Your task to perform on an android device: Open network settings Image 0: 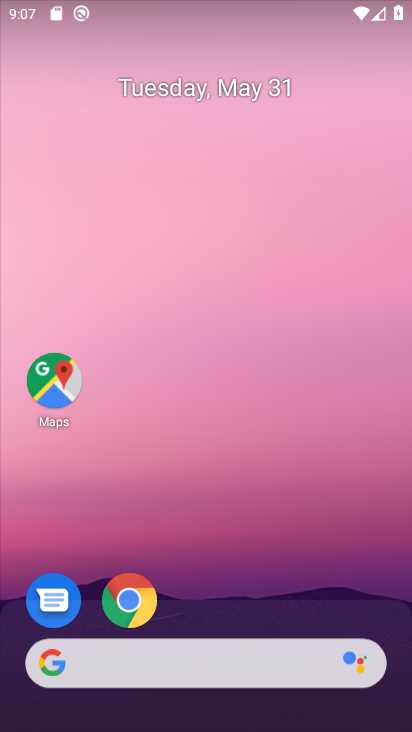
Step 0: drag from (202, 609) to (225, 117)
Your task to perform on an android device: Open network settings Image 1: 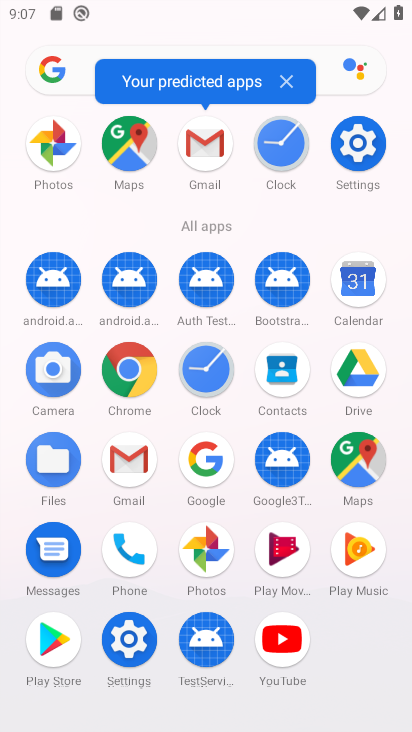
Step 1: click (359, 147)
Your task to perform on an android device: Open network settings Image 2: 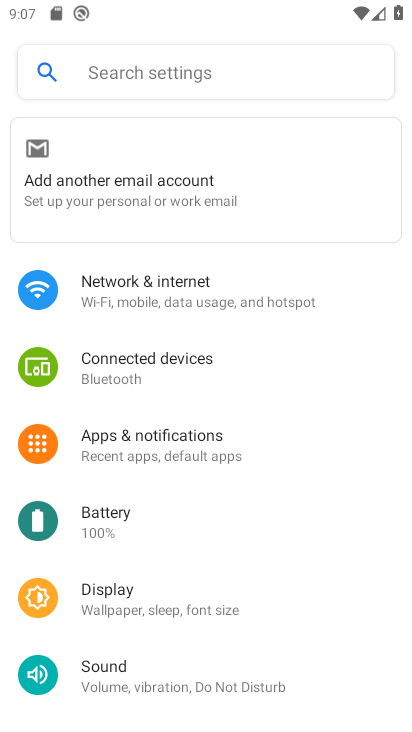
Step 2: click (154, 280)
Your task to perform on an android device: Open network settings Image 3: 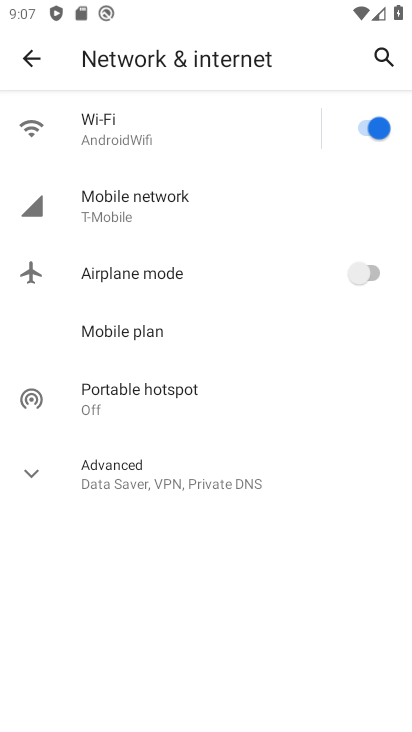
Step 3: task complete